Your task to perform on an android device: install app "Venmo" Image 0: 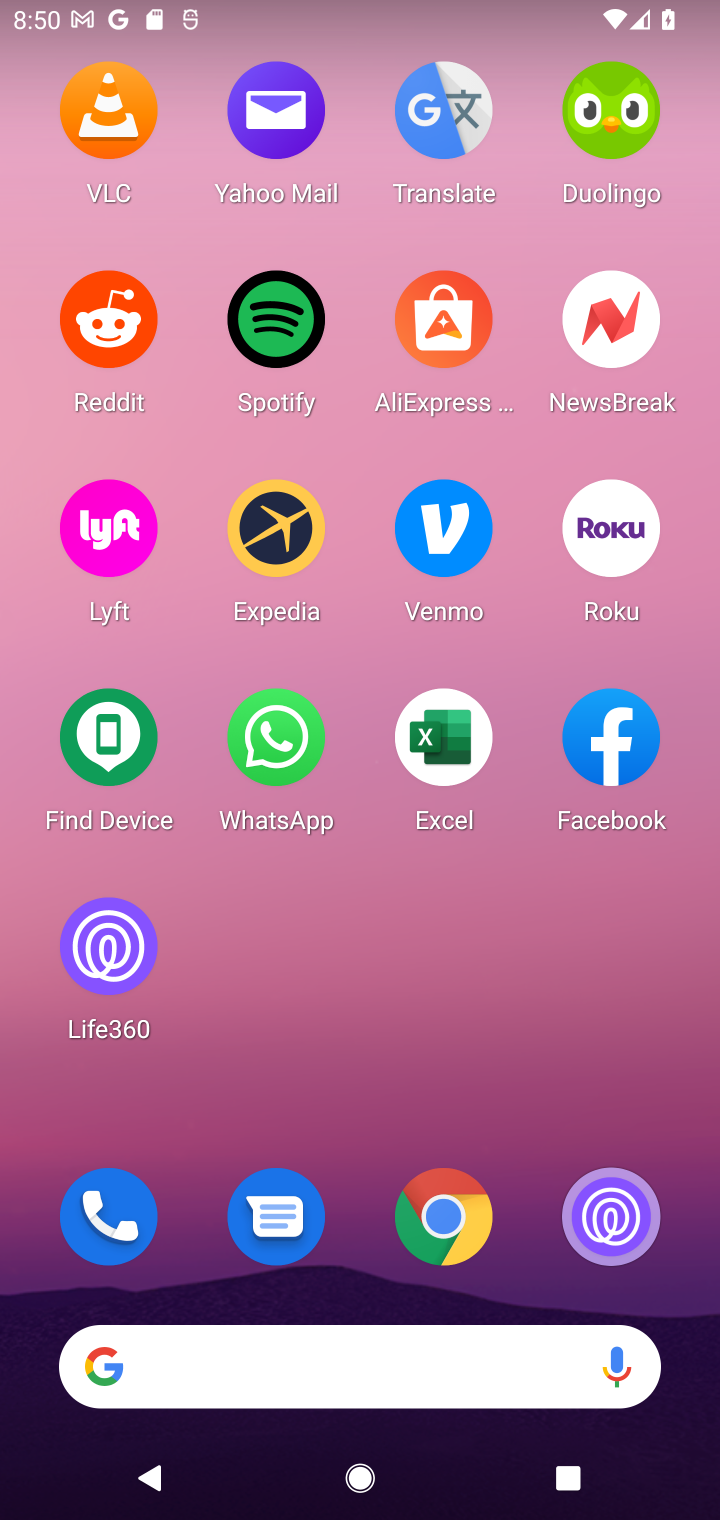
Step 0: press home button
Your task to perform on an android device: install app "Venmo" Image 1: 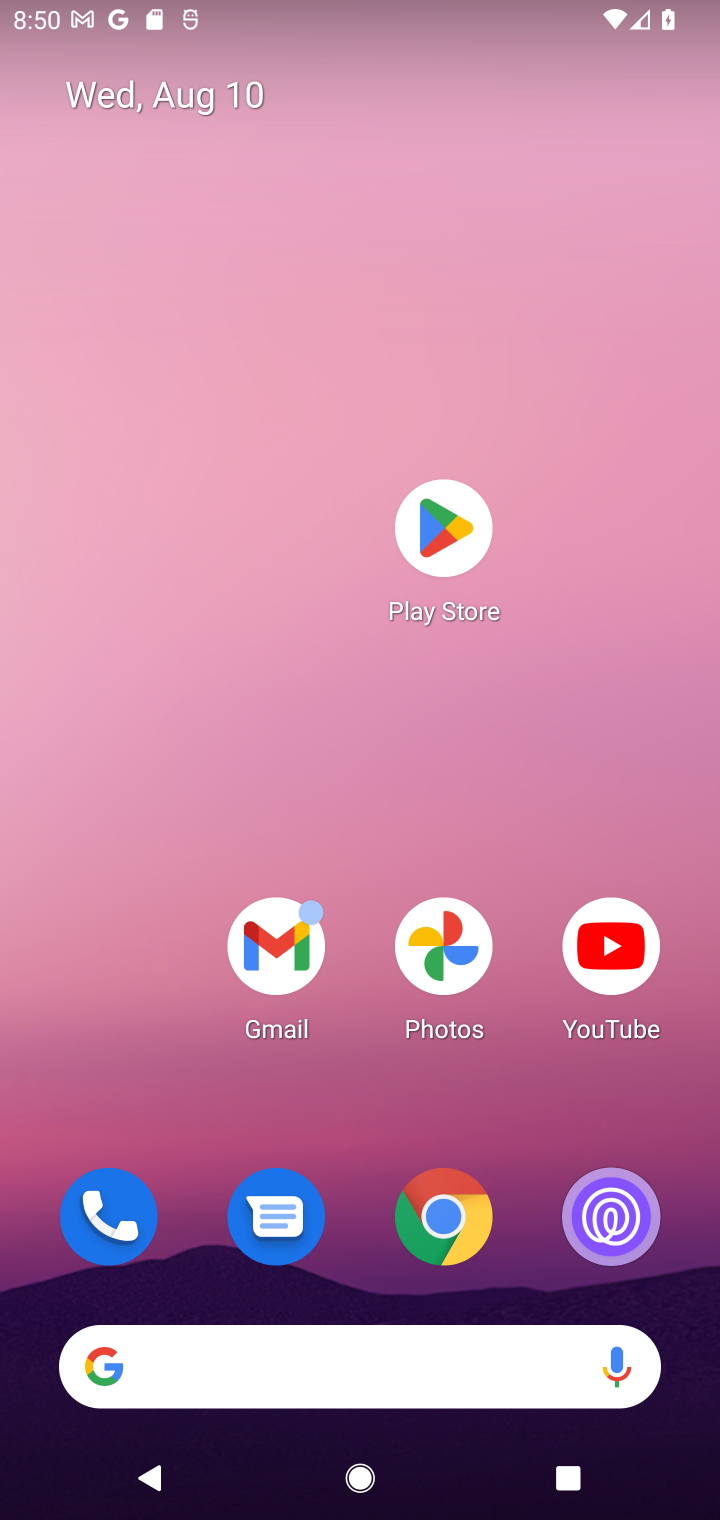
Step 1: click (448, 519)
Your task to perform on an android device: install app "Venmo" Image 2: 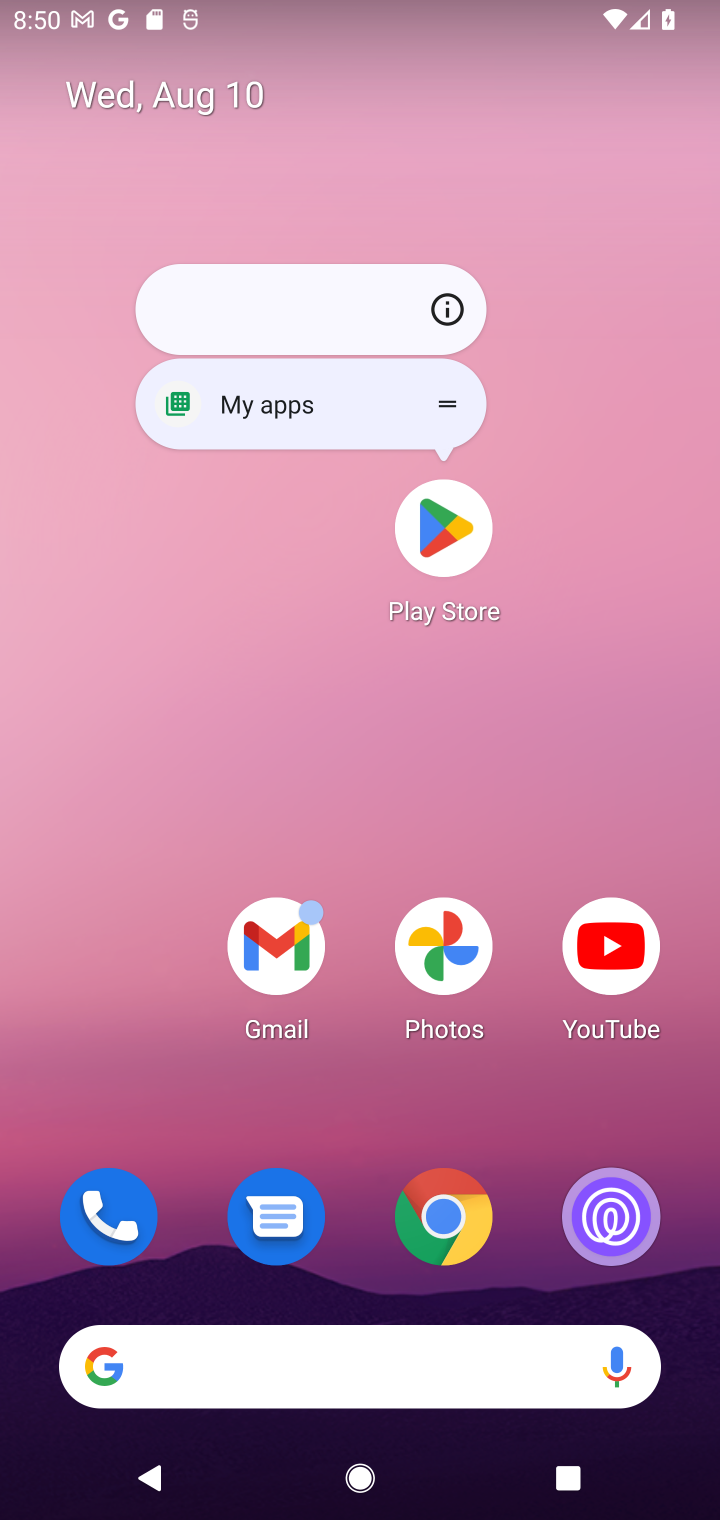
Step 2: click (448, 524)
Your task to perform on an android device: install app "Venmo" Image 3: 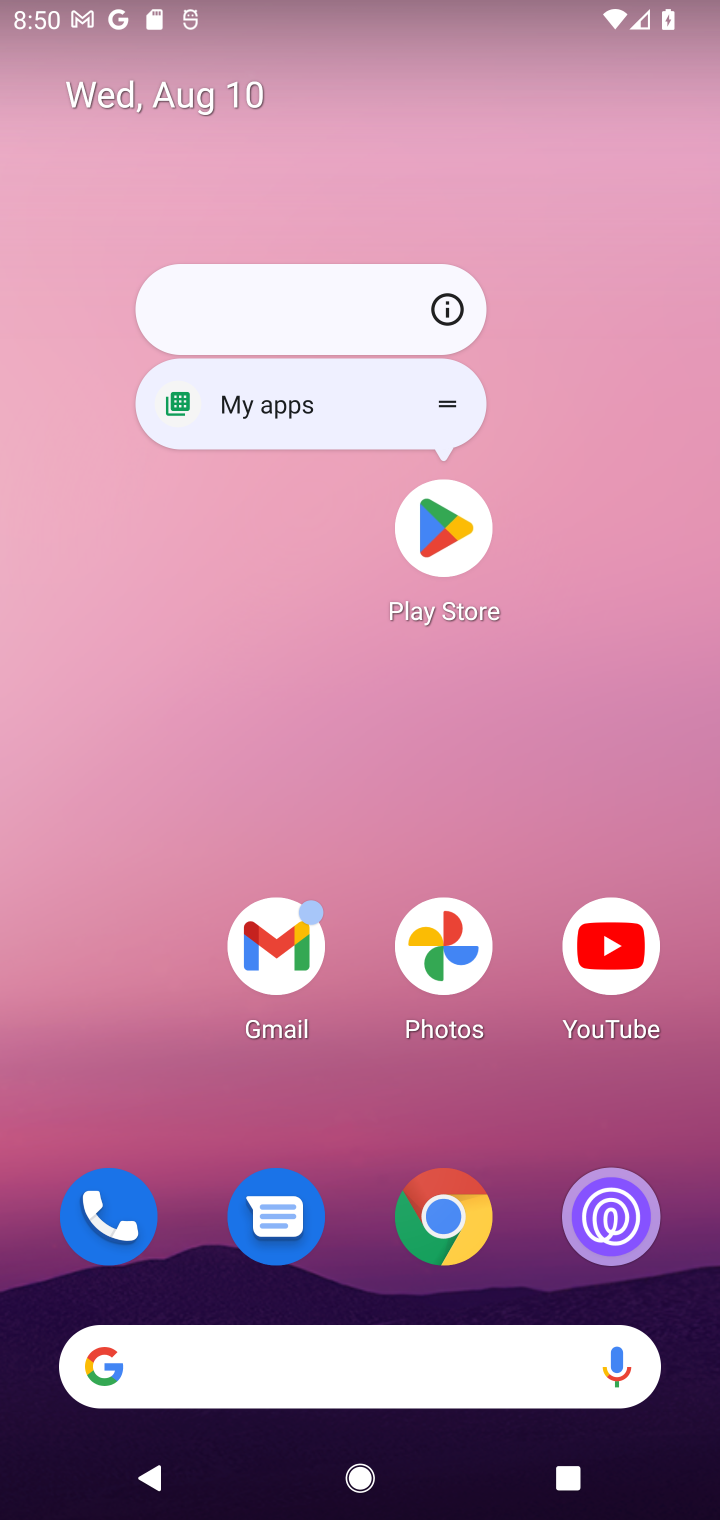
Step 3: click (448, 524)
Your task to perform on an android device: install app "Venmo" Image 4: 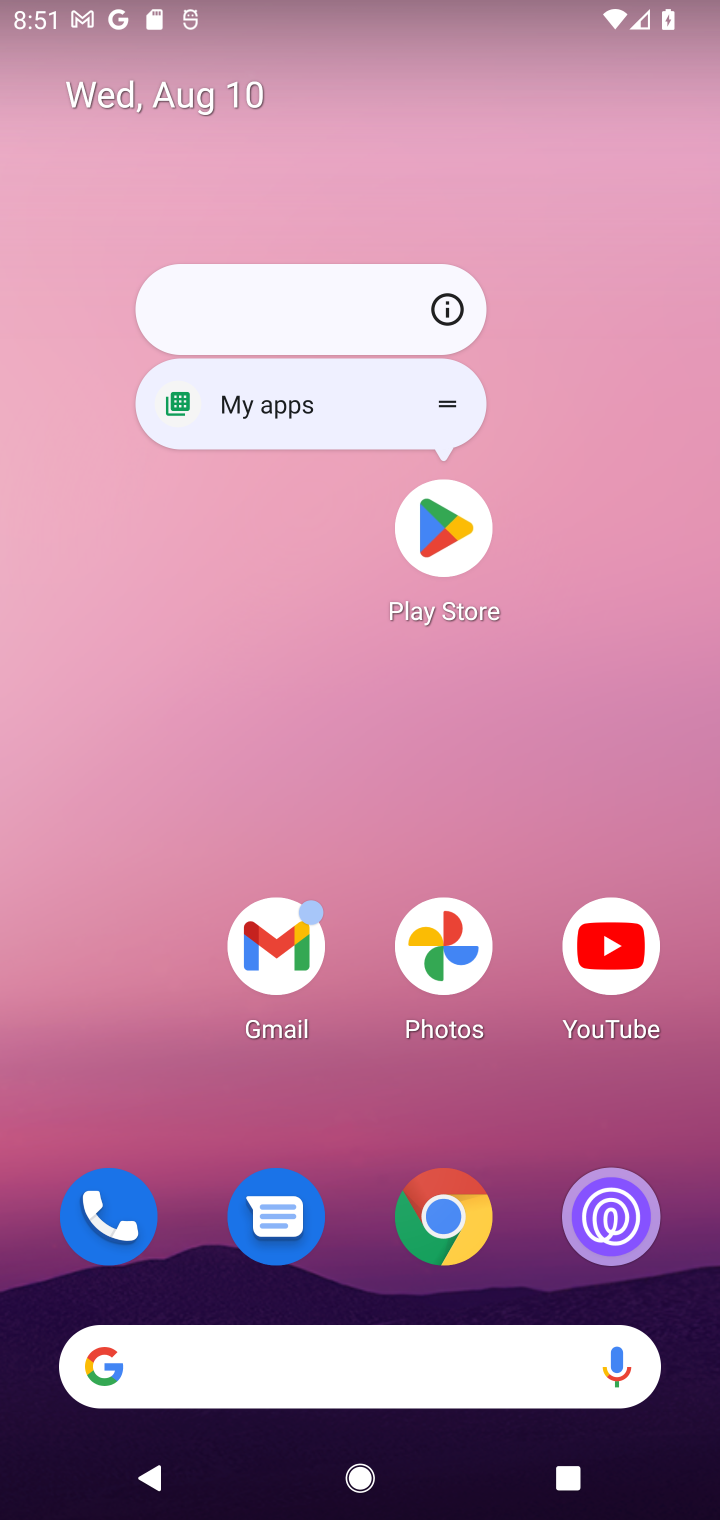
Step 4: click (448, 528)
Your task to perform on an android device: install app "Venmo" Image 5: 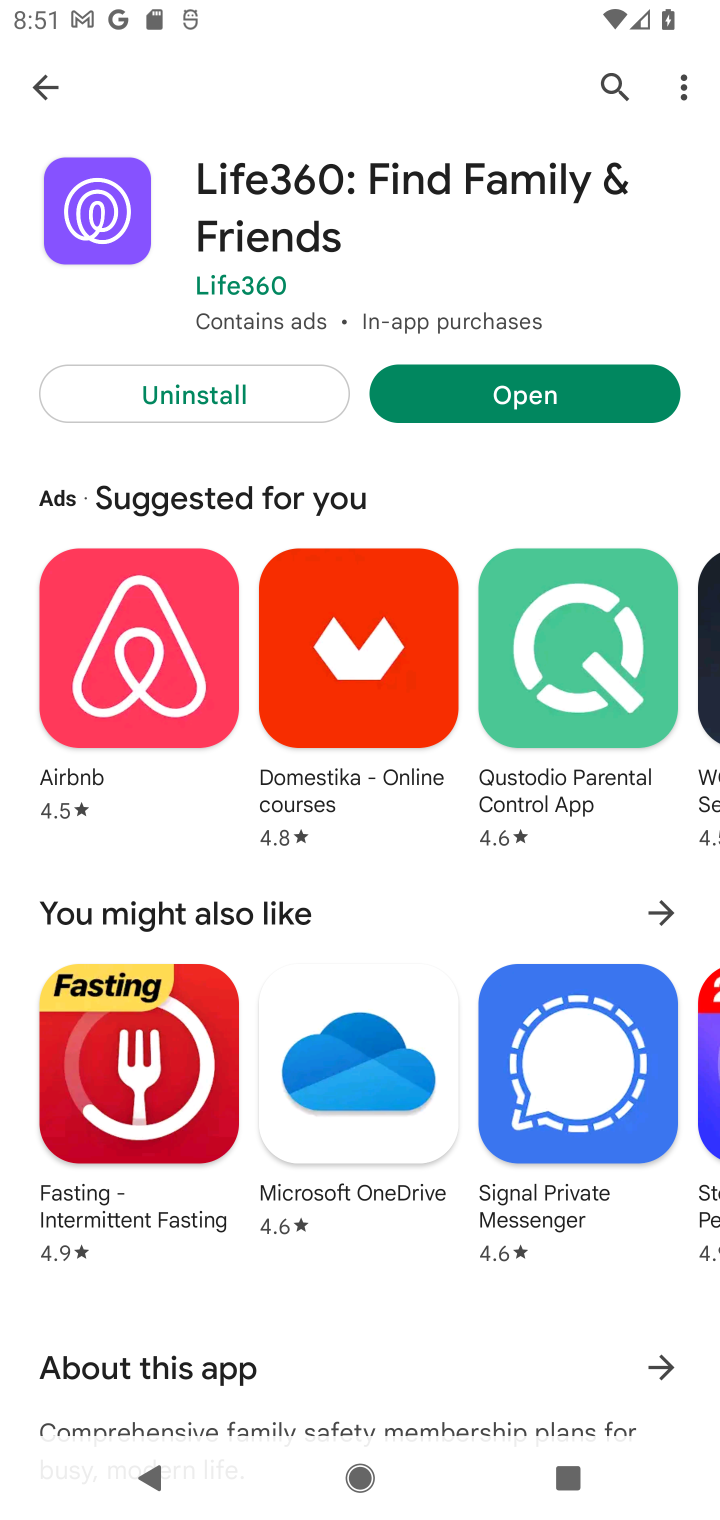
Step 5: click (613, 84)
Your task to perform on an android device: install app "Venmo" Image 6: 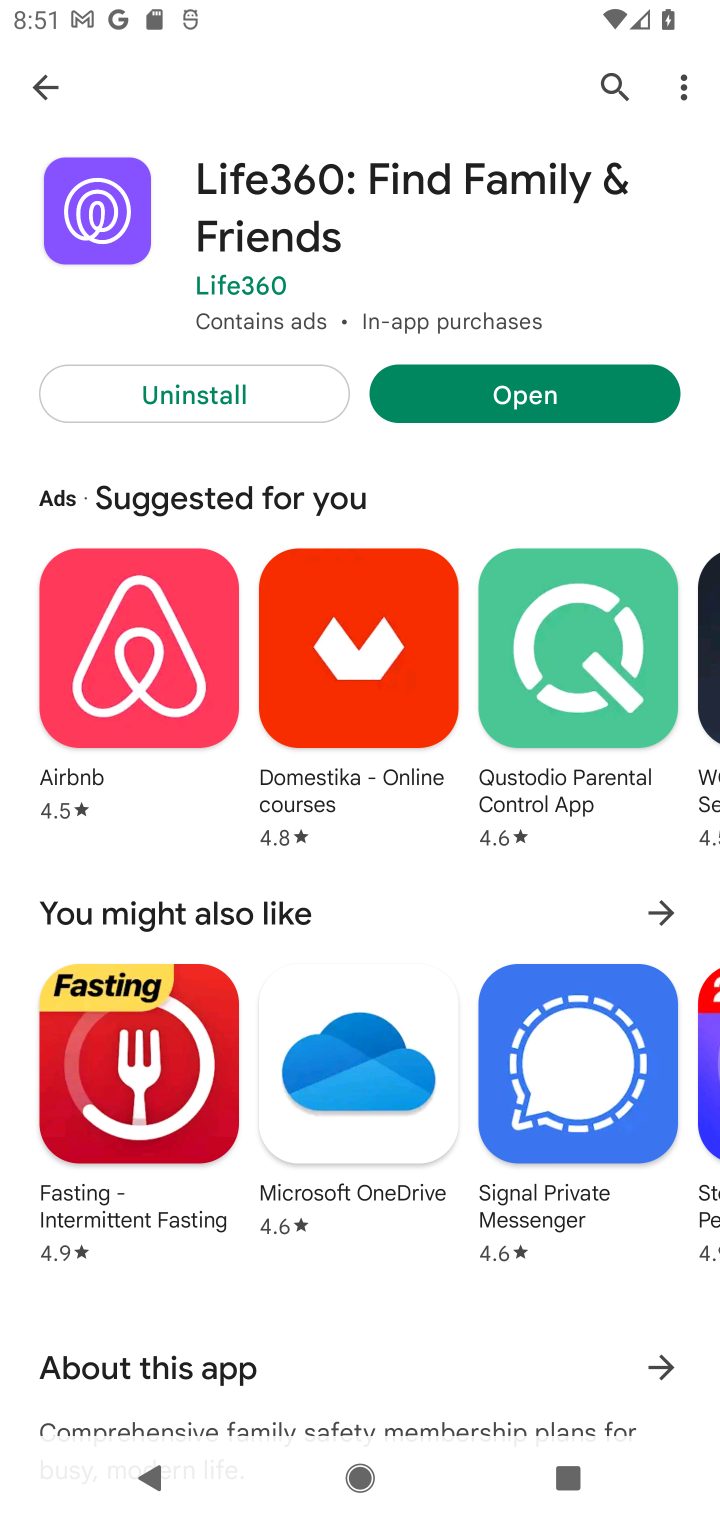
Step 6: click (609, 70)
Your task to perform on an android device: install app "Venmo" Image 7: 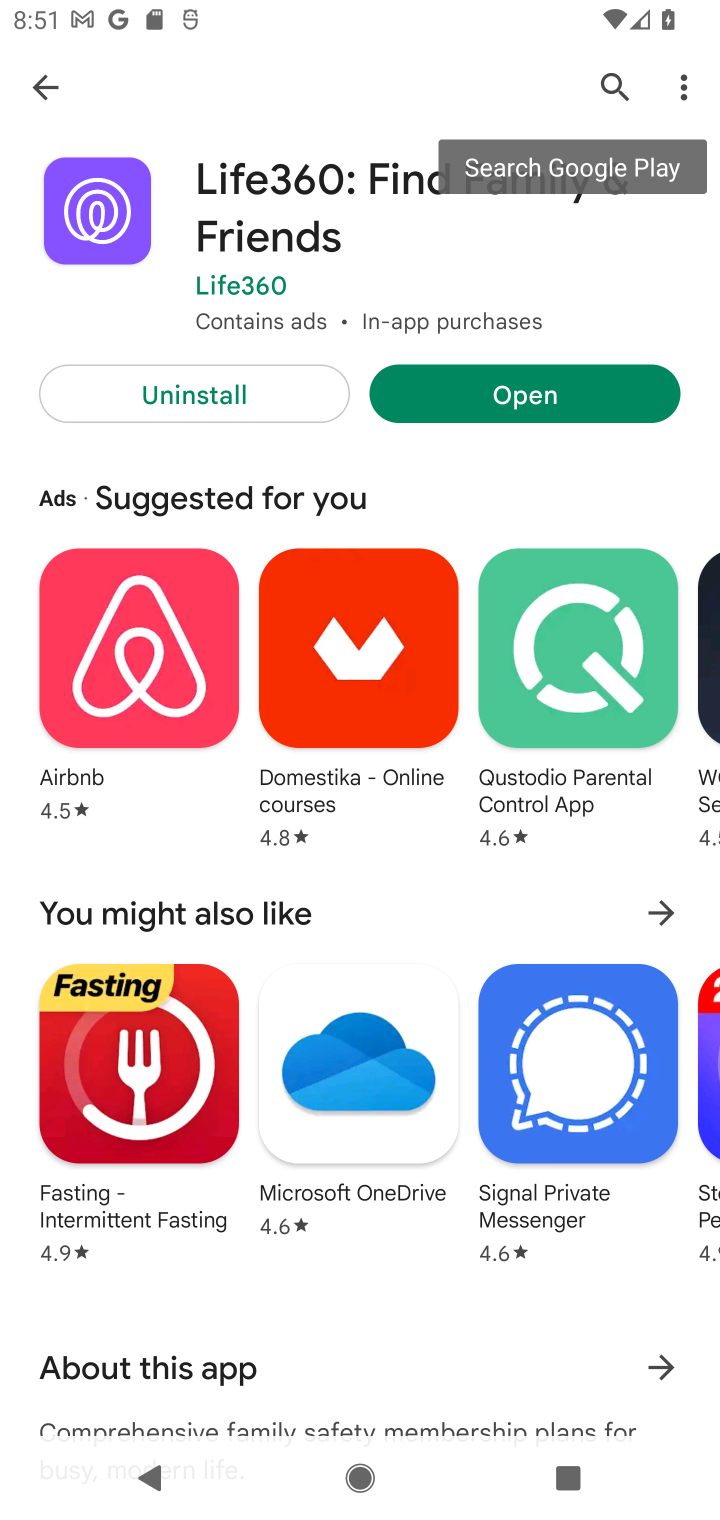
Step 7: click (611, 77)
Your task to perform on an android device: install app "Venmo" Image 8: 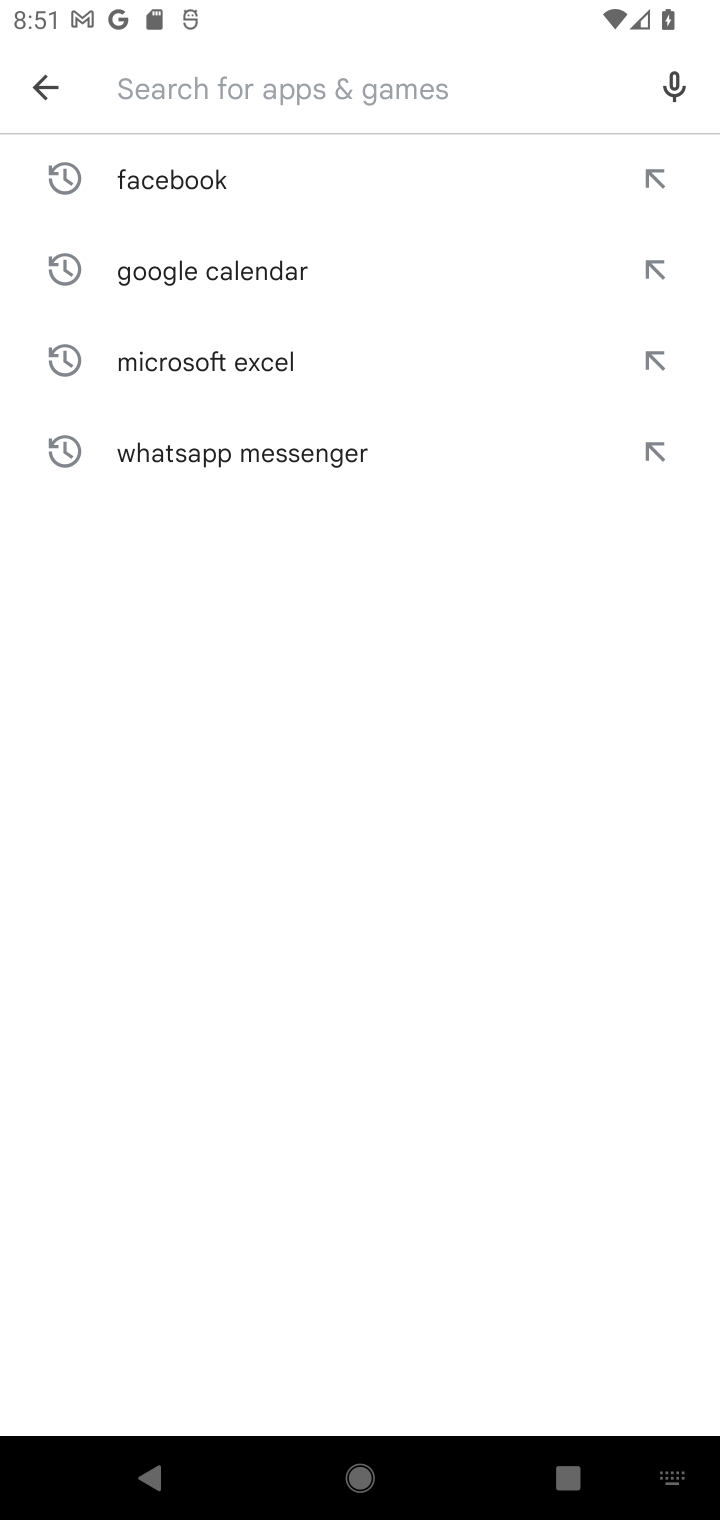
Step 8: type "Venmo"
Your task to perform on an android device: install app "Venmo" Image 9: 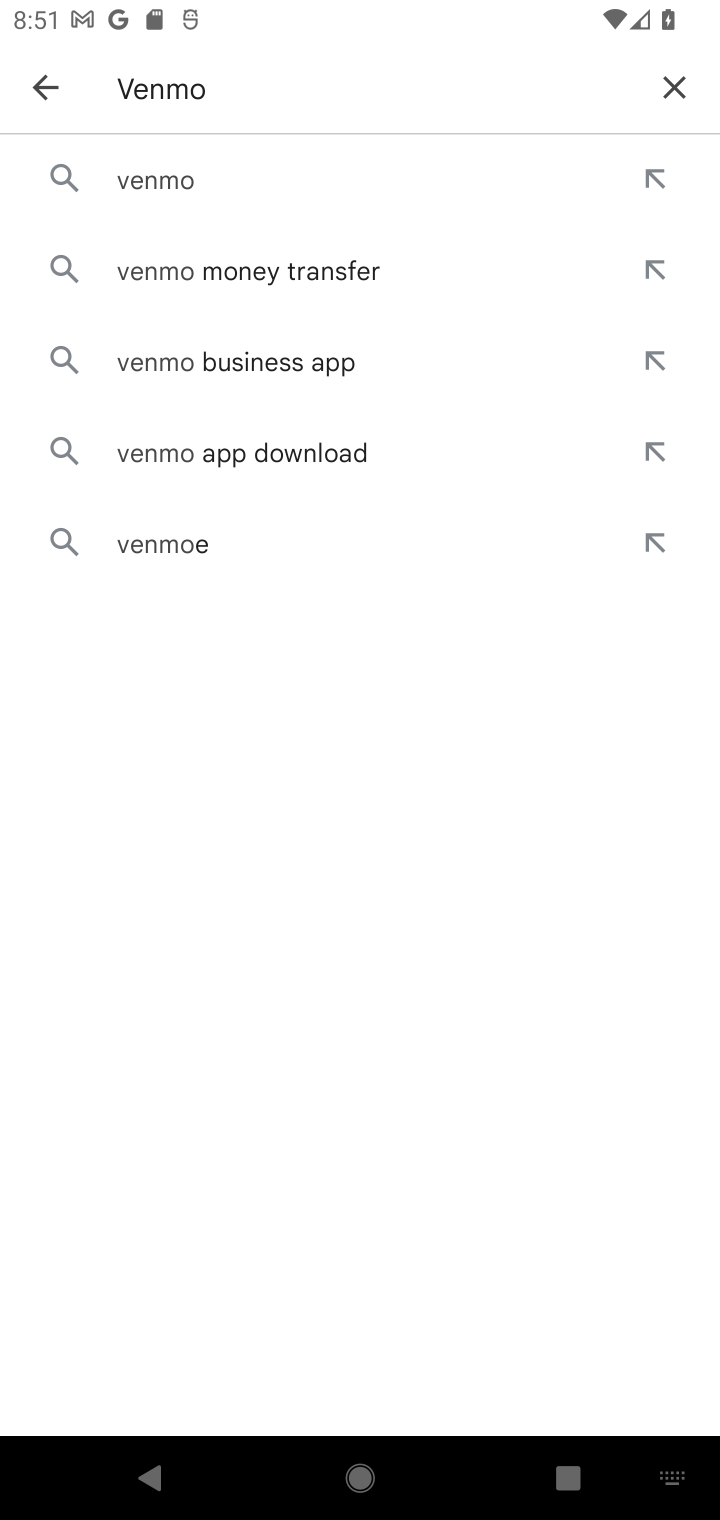
Step 9: click (170, 168)
Your task to perform on an android device: install app "Venmo" Image 10: 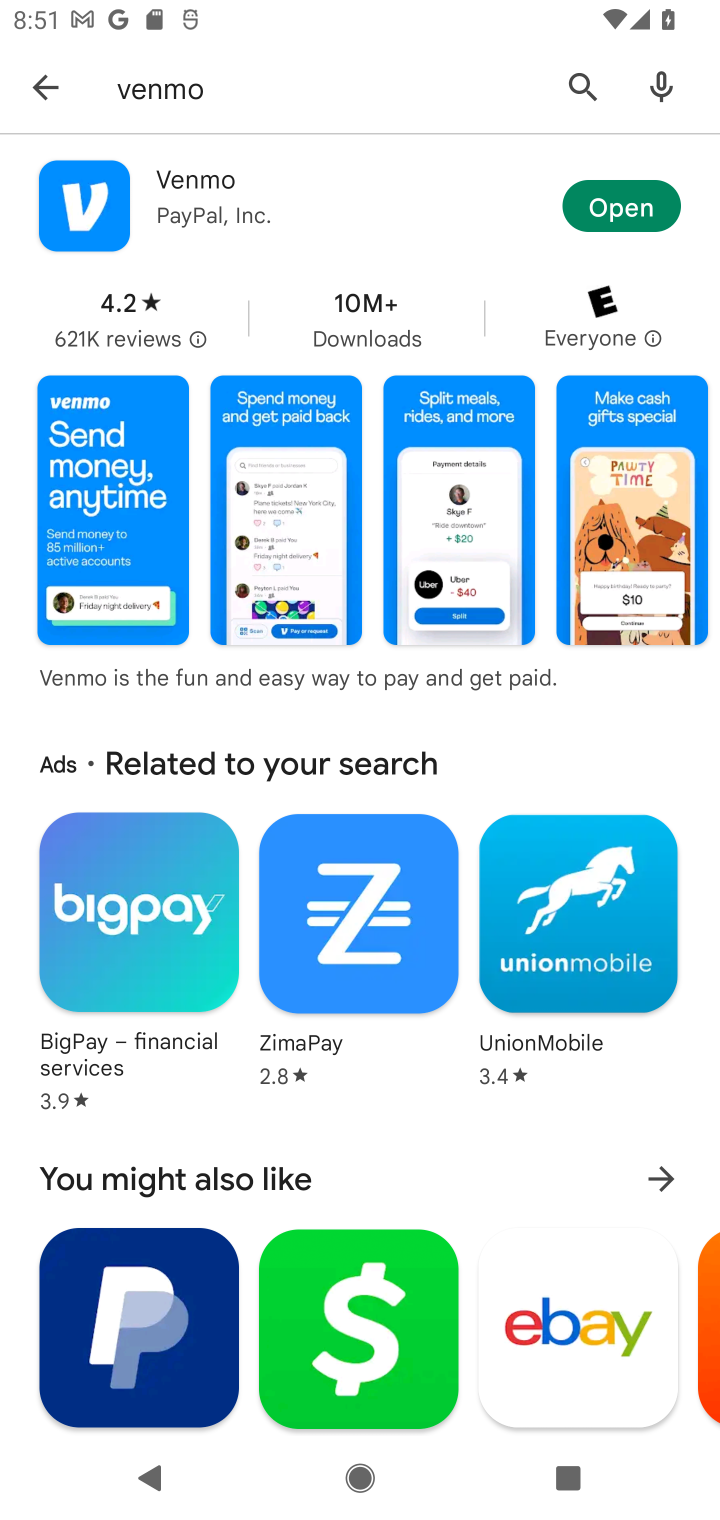
Step 10: task complete